Your task to perform on an android device: Go to location settings Image 0: 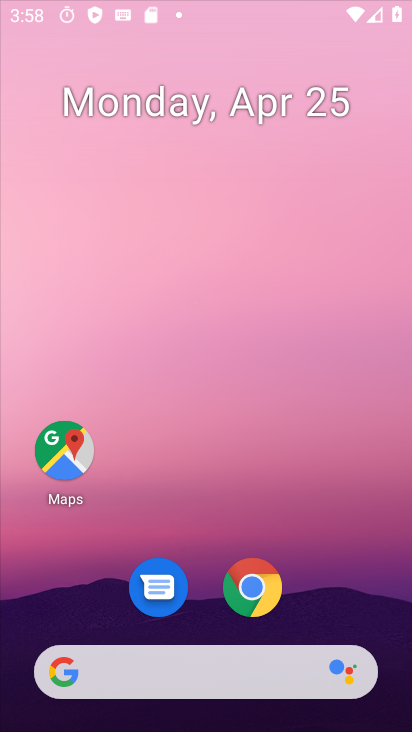
Step 0: drag from (322, 265) to (344, 161)
Your task to perform on an android device: Go to location settings Image 1: 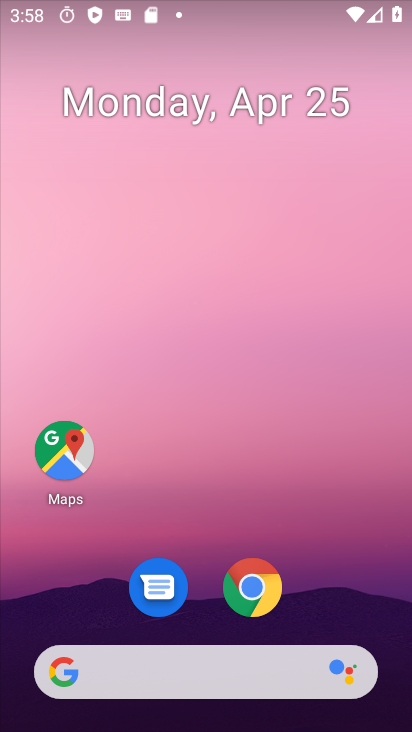
Step 1: drag from (325, 498) to (302, 72)
Your task to perform on an android device: Go to location settings Image 2: 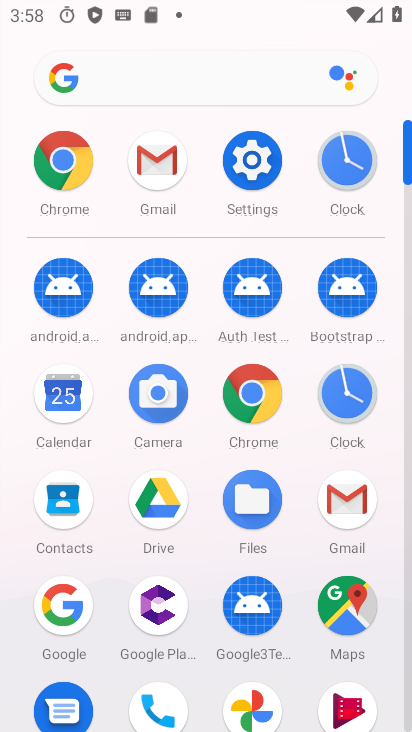
Step 2: drag from (191, 588) to (258, 238)
Your task to perform on an android device: Go to location settings Image 3: 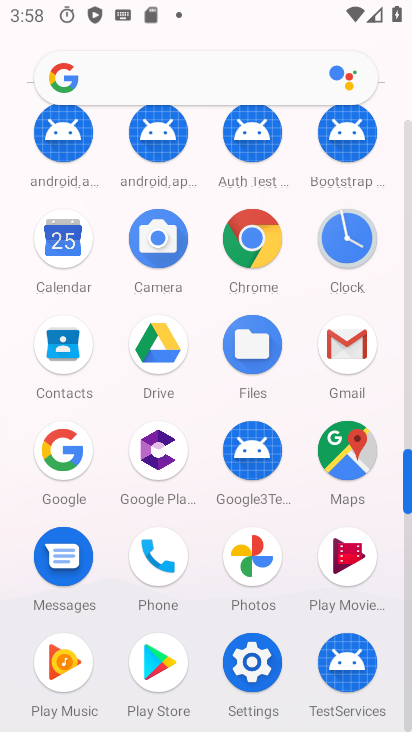
Step 3: click (256, 680)
Your task to perform on an android device: Go to location settings Image 4: 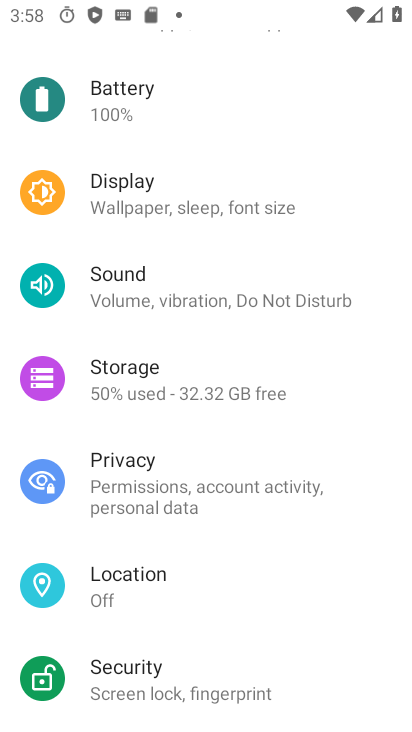
Step 4: drag from (204, 650) to (353, 111)
Your task to perform on an android device: Go to location settings Image 5: 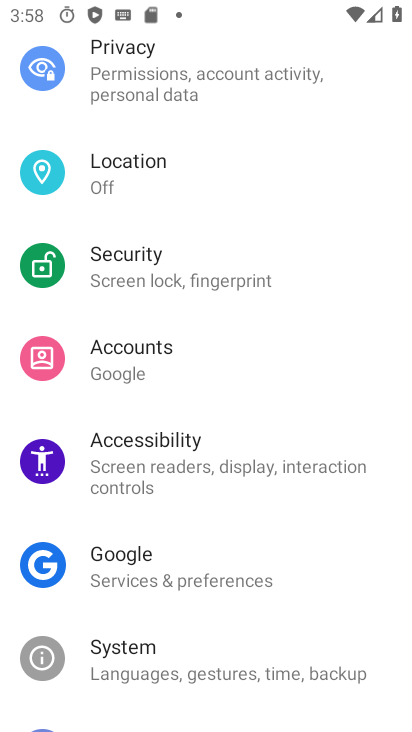
Step 5: click (126, 185)
Your task to perform on an android device: Go to location settings Image 6: 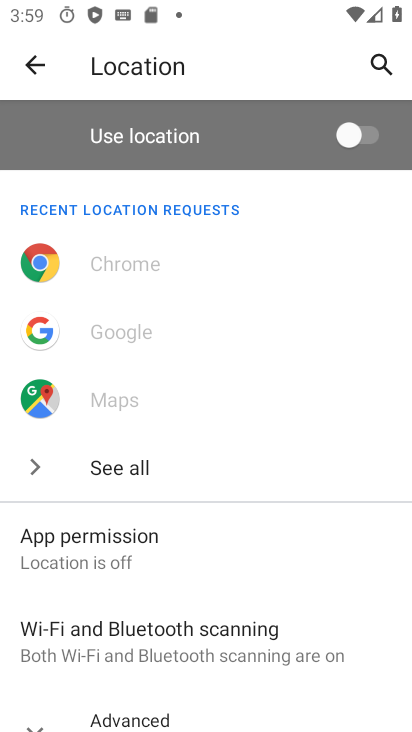
Step 6: drag from (230, 670) to (291, 324)
Your task to perform on an android device: Go to location settings Image 7: 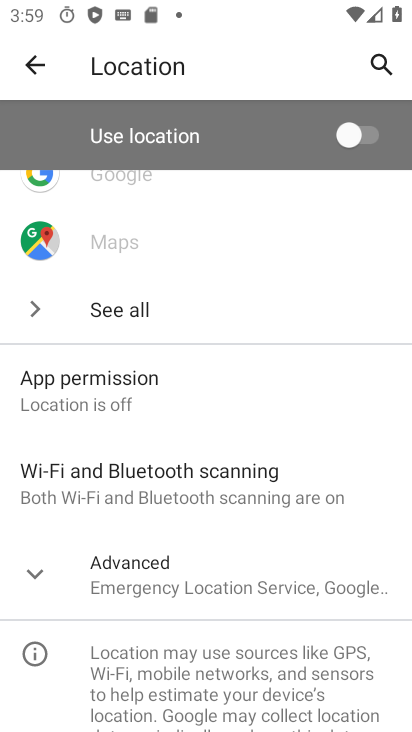
Step 7: click (195, 583)
Your task to perform on an android device: Go to location settings Image 8: 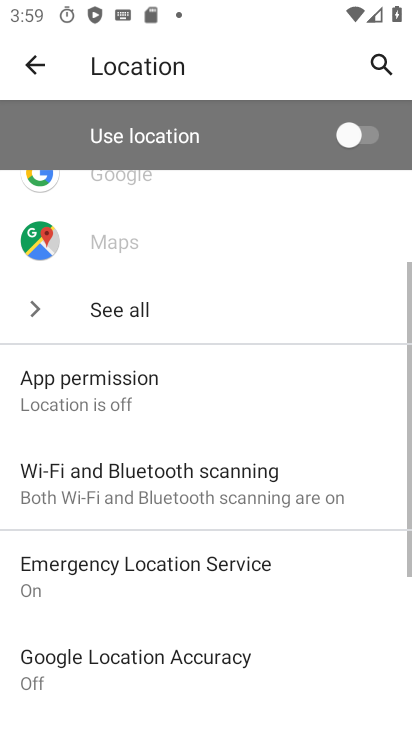
Step 8: task complete